Your task to perform on an android device: turn on wifi Image 0: 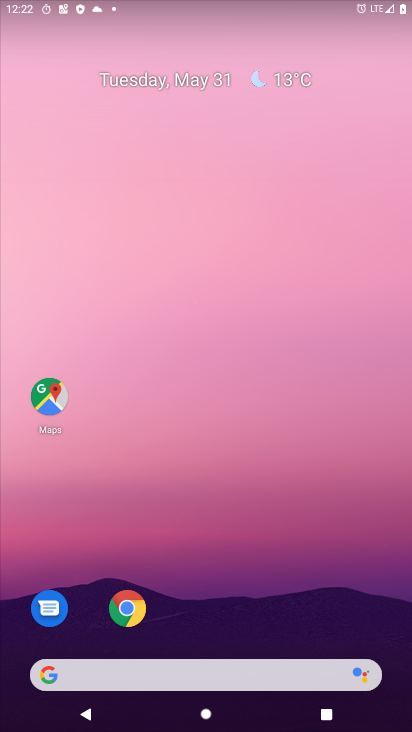
Step 0: drag from (230, 644) to (239, 59)
Your task to perform on an android device: turn on wifi Image 1: 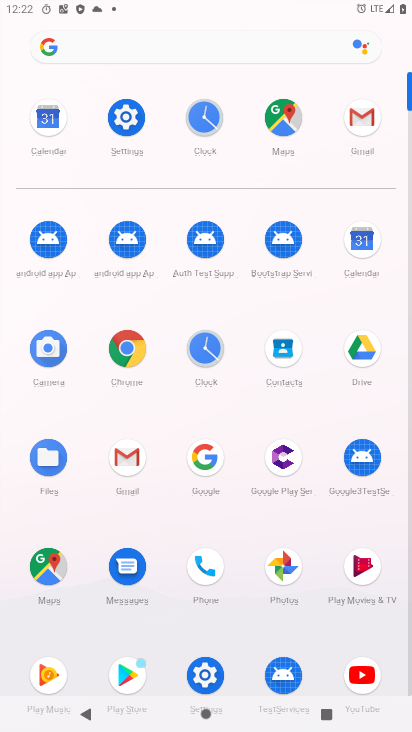
Step 1: click (126, 116)
Your task to perform on an android device: turn on wifi Image 2: 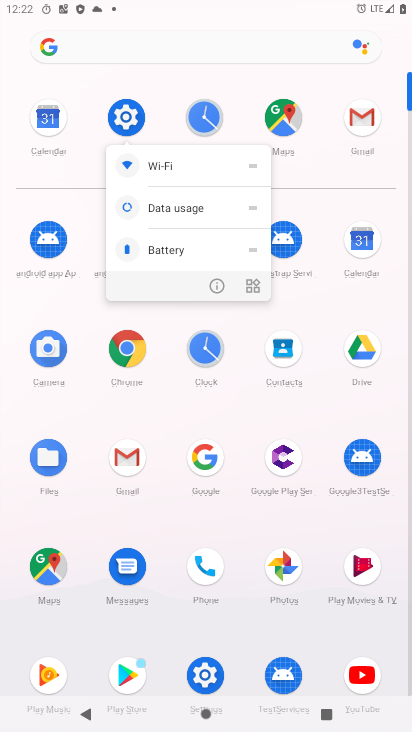
Step 2: click (125, 116)
Your task to perform on an android device: turn on wifi Image 3: 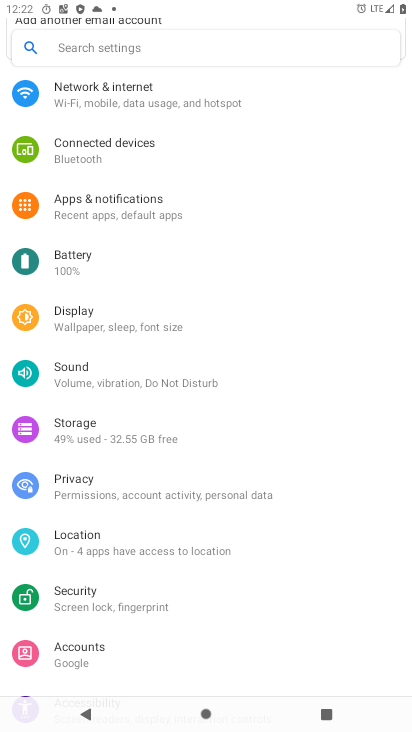
Step 3: click (109, 93)
Your task to perform on an android device: turn on wifi Image 4: 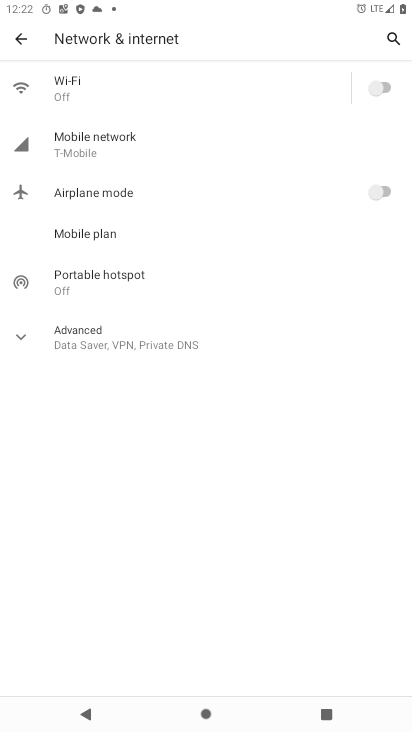
Step 4: click (380, 87)
Your task to perform on an android device: turn on wifi Image 5: 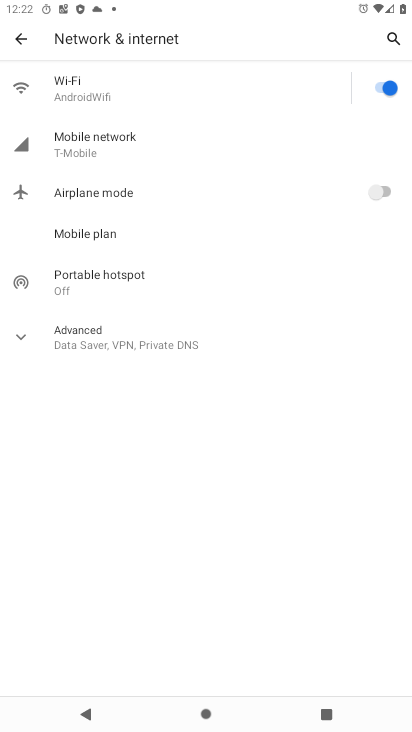
Step 5: task complete